Your task to perform on an android device: What's the weather? Image 0: 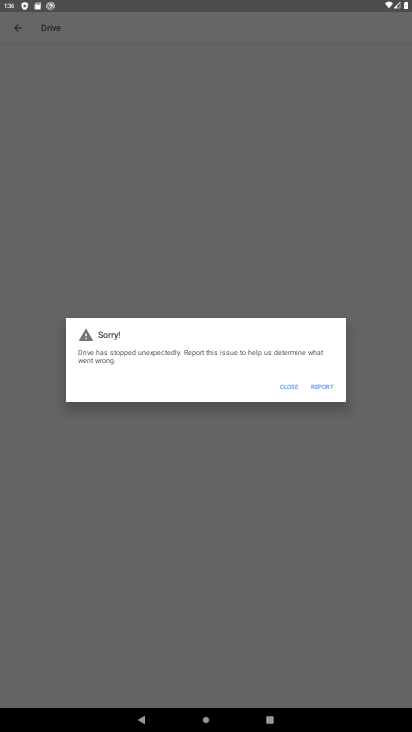
Step 0: press home button
Your task to perform on an android device: What's the weather? Image 1: 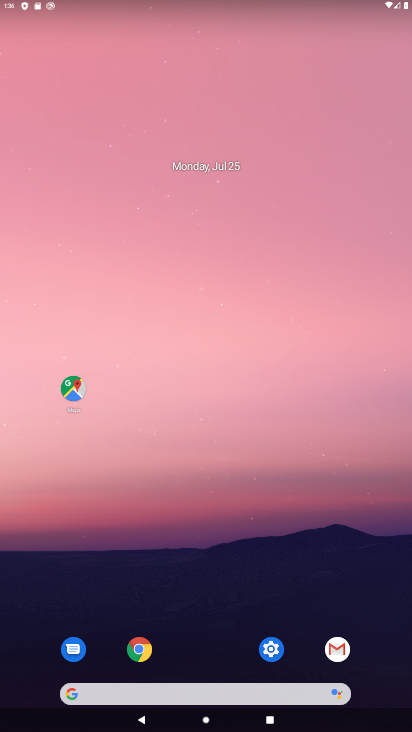
Step 1: click (112, 701)
Your task to perform on an android device: What's the weather? Image 2: 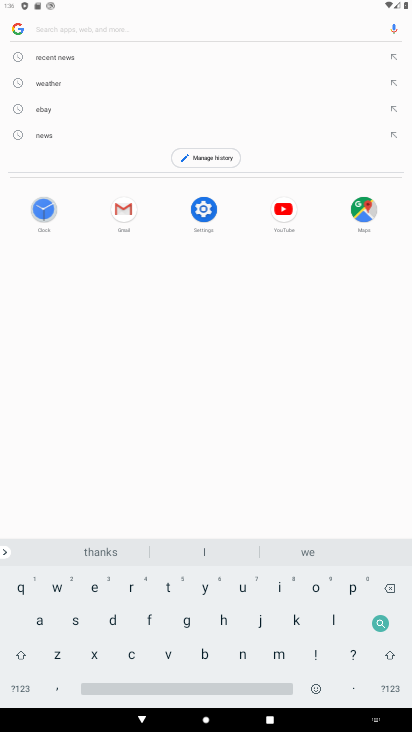
Step 2: click (62, 79)
Your task to perform on an android device: What's the weather? Image 3: 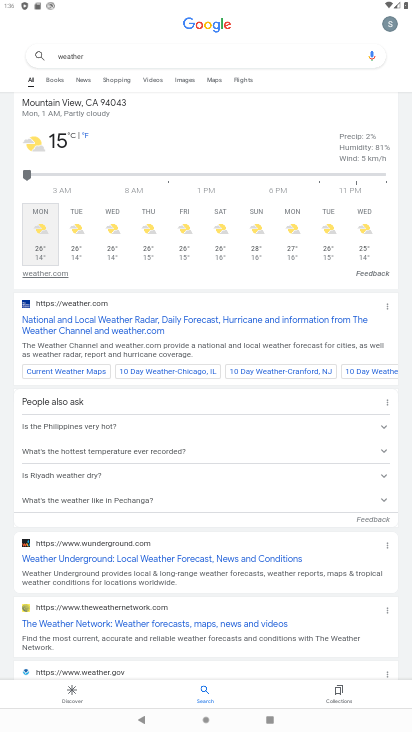
Step 3: task complete